Your task to perform on an android device: Open internet settings Image 0: 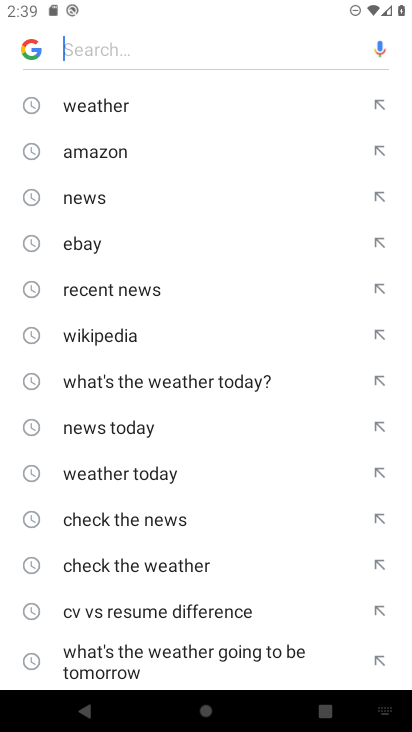
Step 0: press home button
Your task to perform on an android device: Open internet settings Image 1: 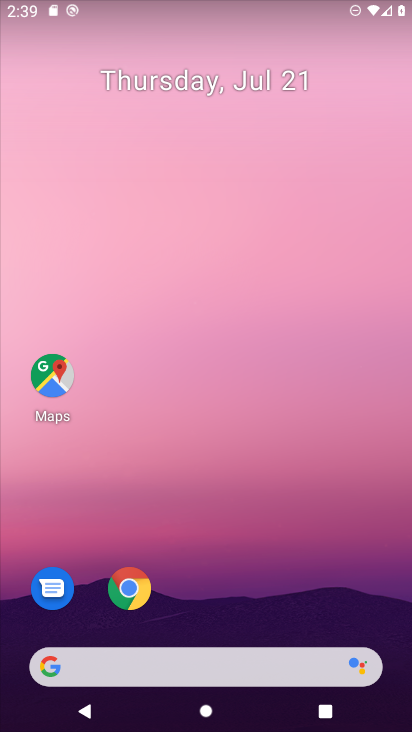
Step 1: drag from (220, 618) to (10, 105)
Your task to perform on an android device: Open internet settings Image 2: 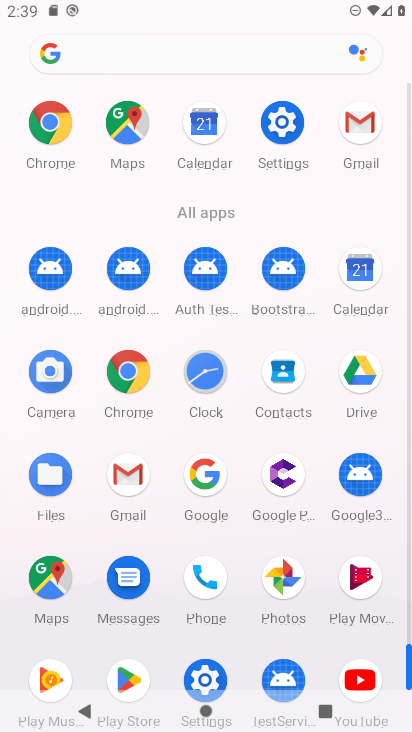
Step 2: click (281, 148)
Your task to perform on an android device: Open internet settings Image 3: 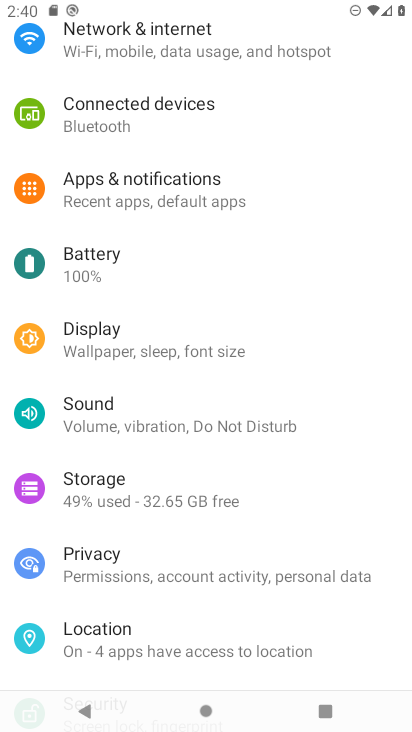
Step 3: drag from (235, 422) to (85, 695)
Your task to perform on an android device: Open internet settings Image 4: 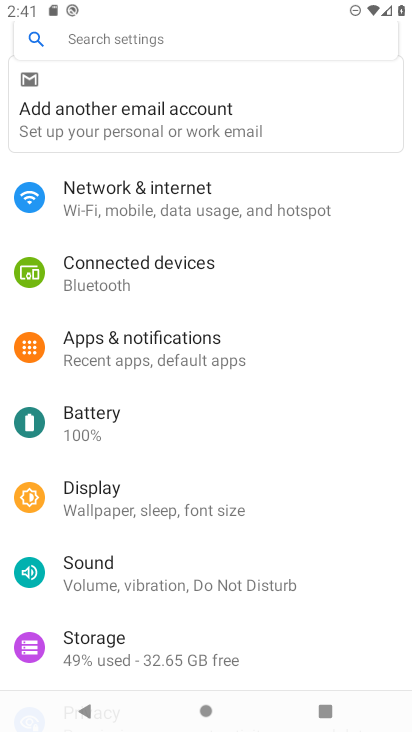
Step 4: click (167, 223)
Your task to perform on an android device: Open internet settings Image 5: 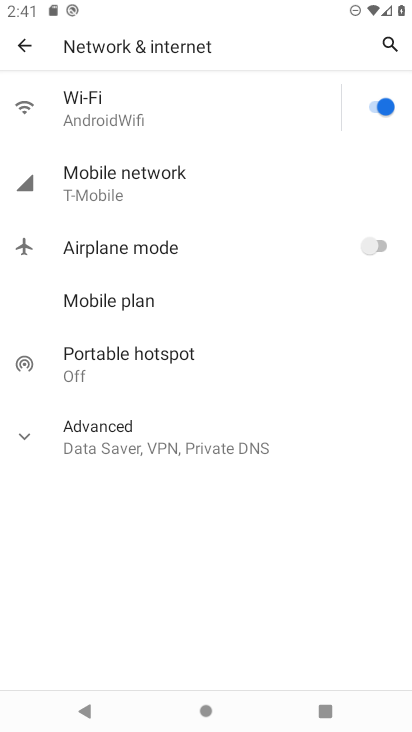
Step 5: drag from (186, 261) to (124, 536)
Your task to perform on an android device: Open internet settings Image 6: 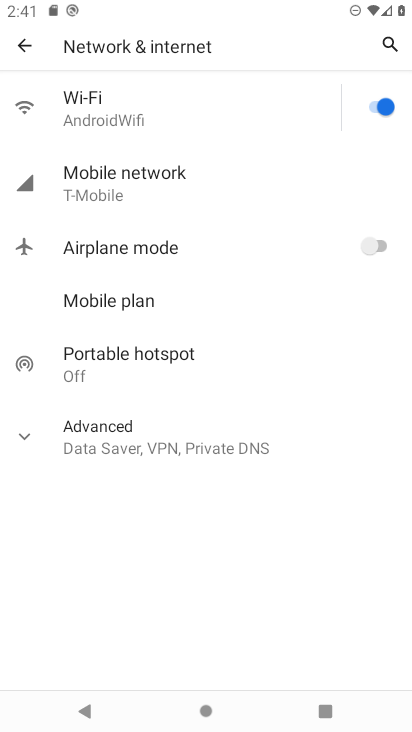
Step 6: click (208, 195)
Your task to perform on an android device: Open internet settings Image 7: 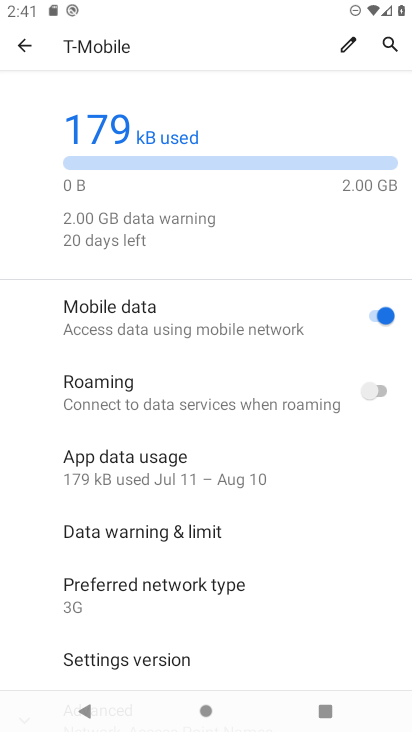
Step 7: task complete